Your task to perform on an android device: Go to ESPN.com Image 0: 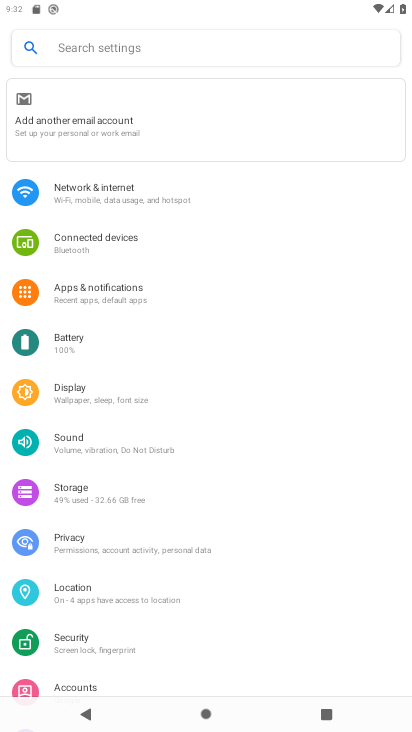
Step 0: press home button
Your task to perform on an android device: Go to ESPN.com Image 1: 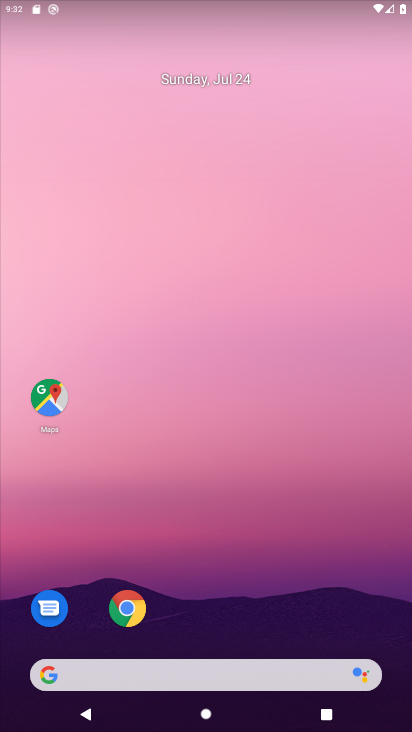
Step 1: click (140, 613)
Your task to perform on an android device: Go to ESPN.com Image 2: 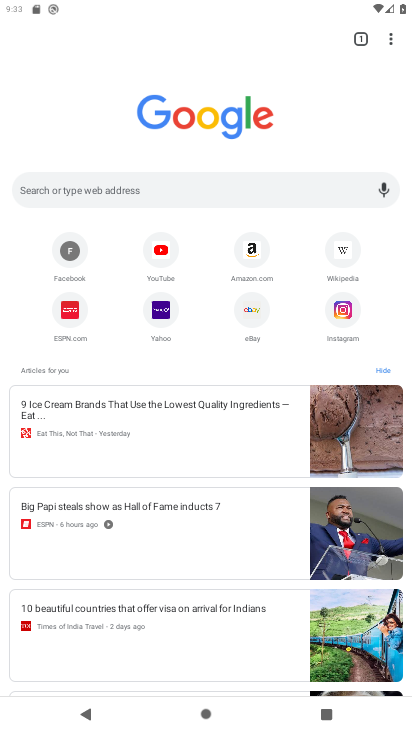
Step 2: click (76, 322)
Your task to perform on an android device: Go to ESPN.com Image 3: 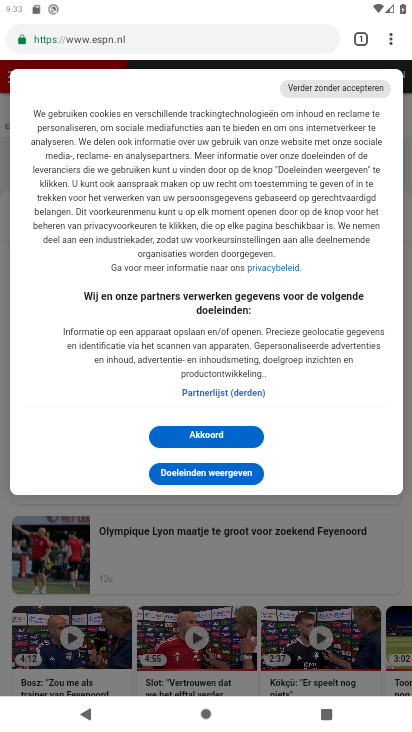
Step 3: task complete